Your task to perform on an android device: empty trash in the gmail app Image 0: 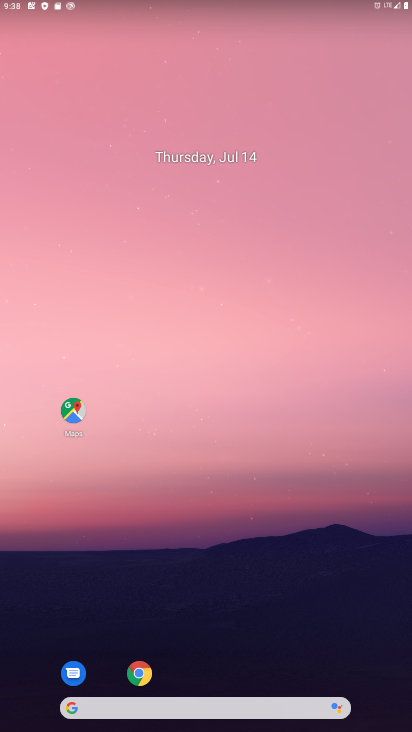
Step 0: drag from (186, 710) to (224, 222)
Your task to perform on an android device: empty trash in the gmail app Image 1: 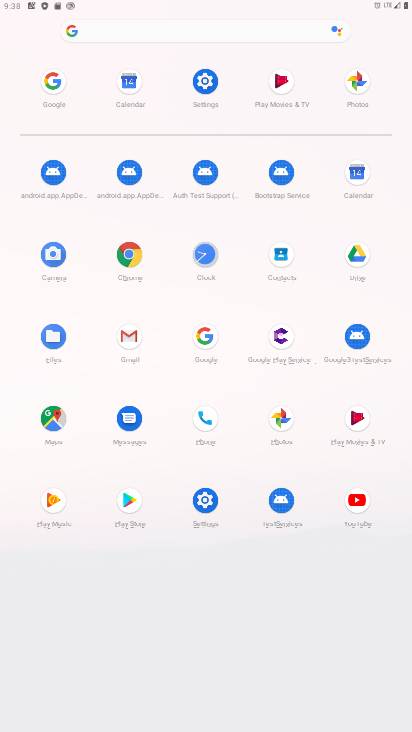
Step 1: click (129, 333)
Your task to perform on an android device: empty trash in the gmail app Image 2: 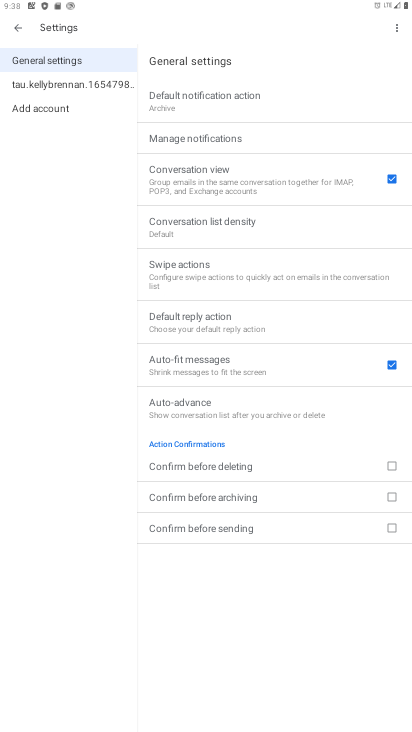
Step 2: press back button
Your task to perform on an android device: empty trash in the gmail app Image 3: 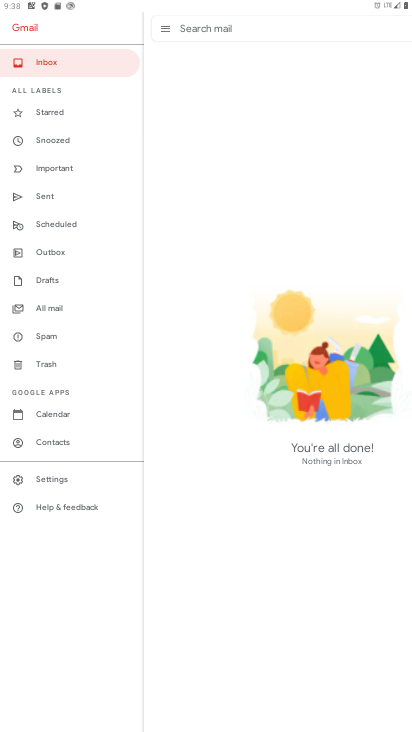
Step 3: click (45, 363)
Your task to perform on an android device: empty trash in the gmail app Image 4: 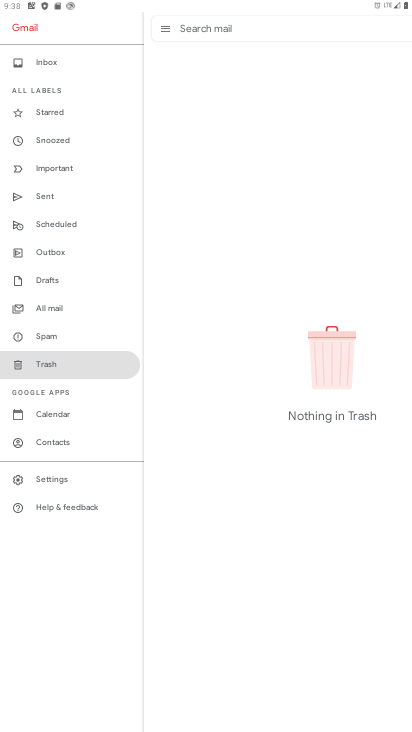
Step 4: task complete